Your task to perform on an android device: Go to Yahoo.com Image 0: 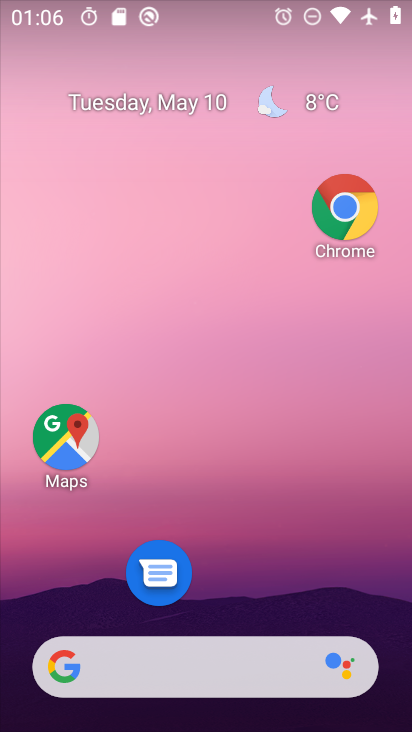
Step 0: click (347, 204)
Your task to perform on an android device: Go to Yahoo.com Image 1: 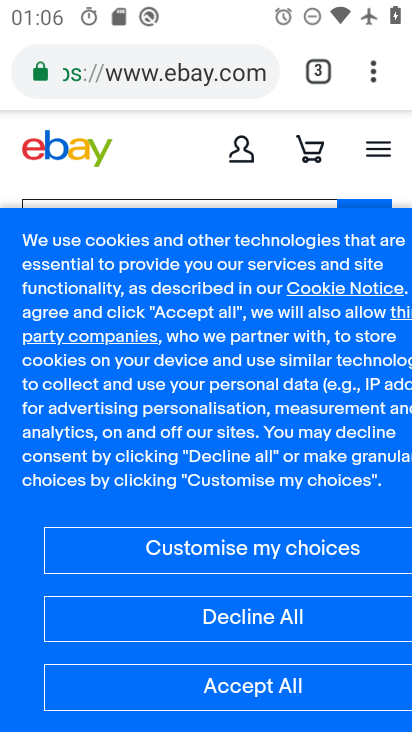
Step 1: click (183, 74)
Your task to perform on an android device: Go to Yahoo.com Image 2: 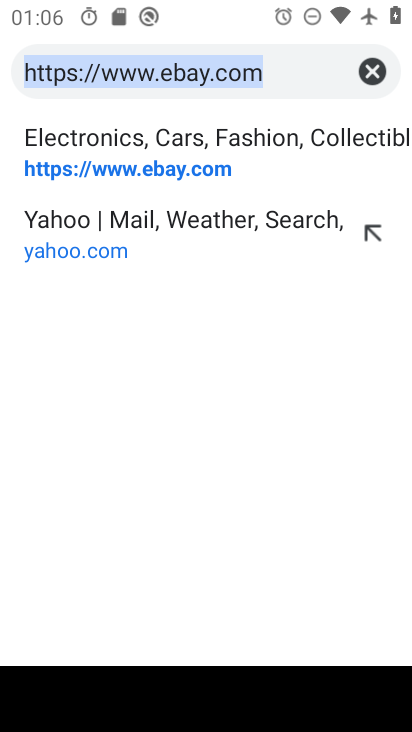
Step 2: type "yahoo.co"
Your task to perform on an android device: Go to Yahoo.com Image 3: 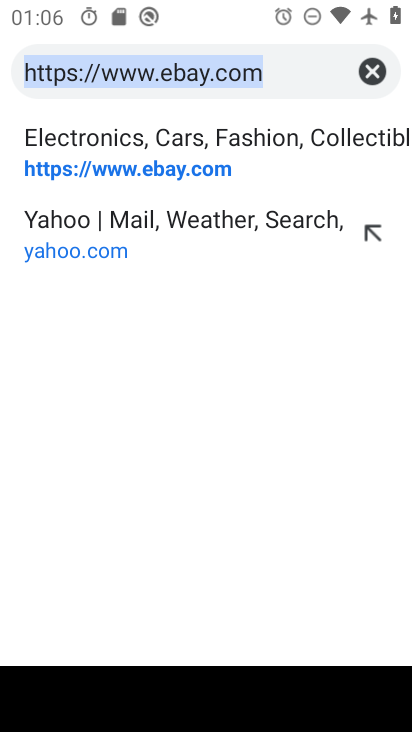
Step 3: click (130, 245)
Your task to perform on an android device: Go to Yahoo.com Image 4: 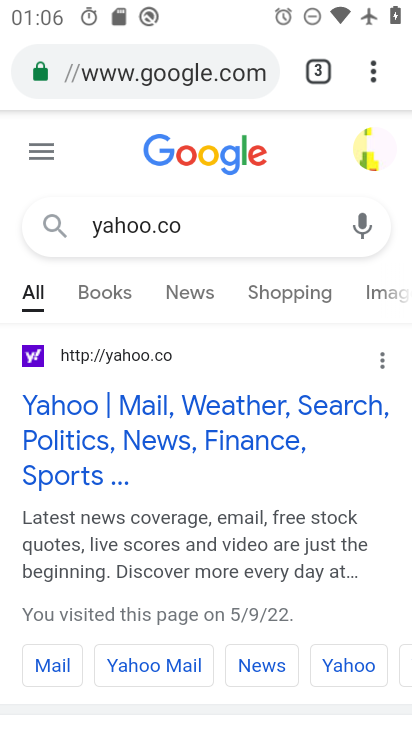
Step 4: click (155, 424)
Your task to perform on an android device: Go to Yahoo.com Image 5: 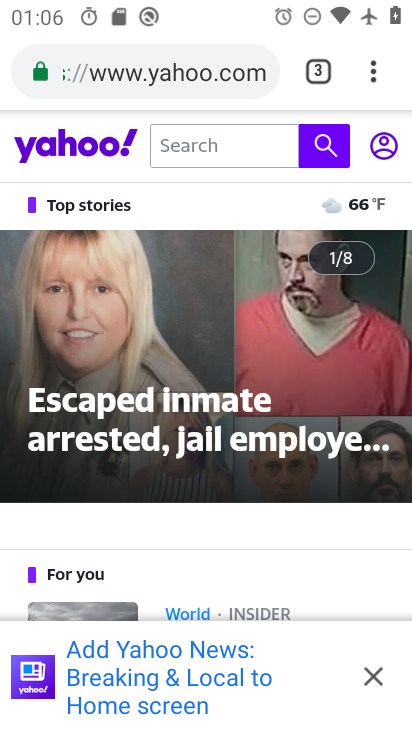
Step 5: task complete